Your task to perform on an android device: Set the phone to "Do not disturb". Image 0: 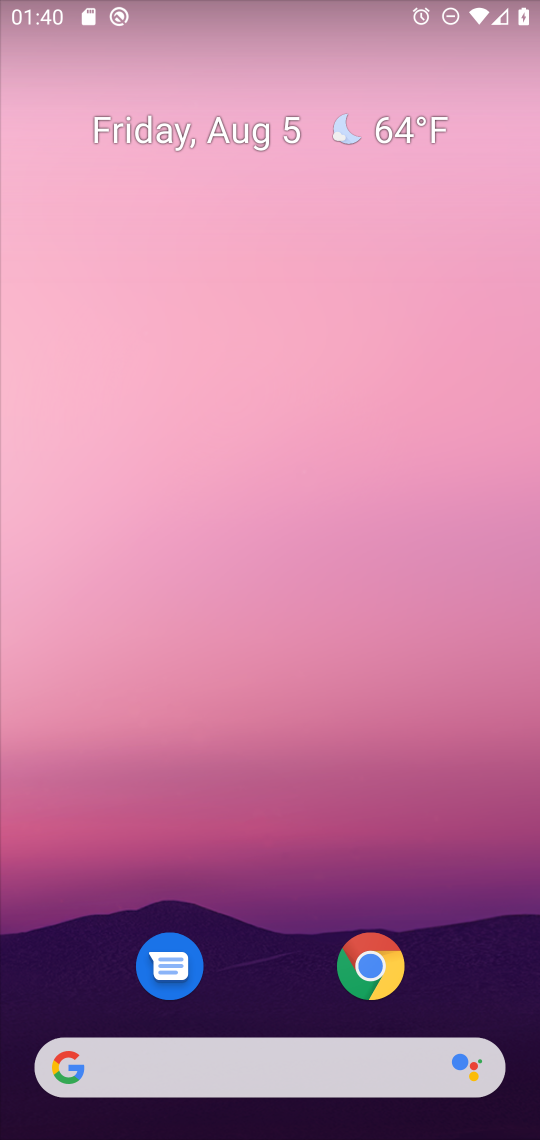
Step 0: drag from (267, 812) to (324, 42)
Your task to perform on an android device: Set the phone to "Do not disturb". Image 1: 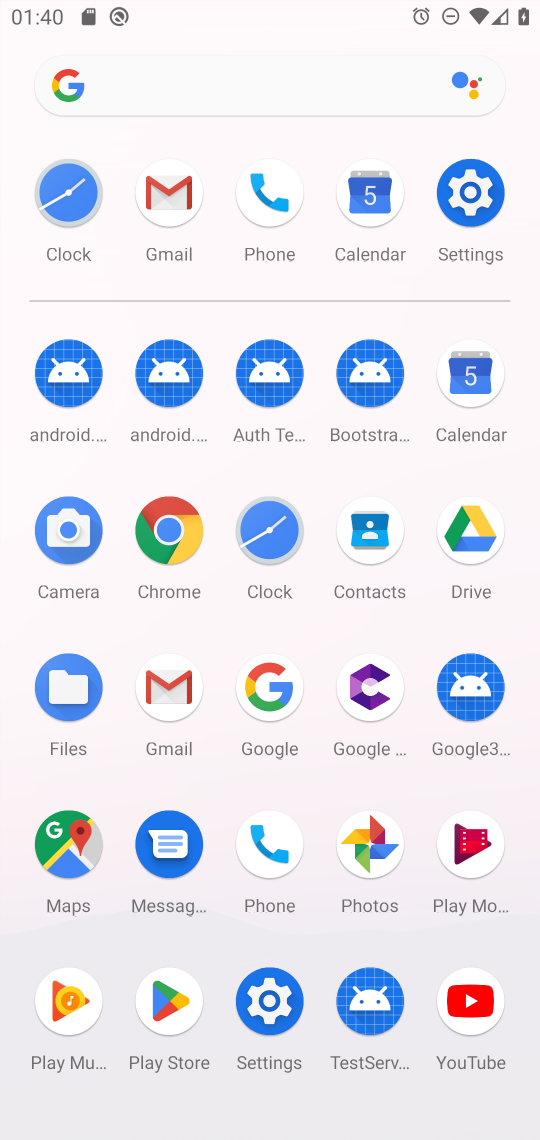
Step 1: click (461, 186)
Your task to perform on an android device: Set the phone to "Do not disturb". Image 2: 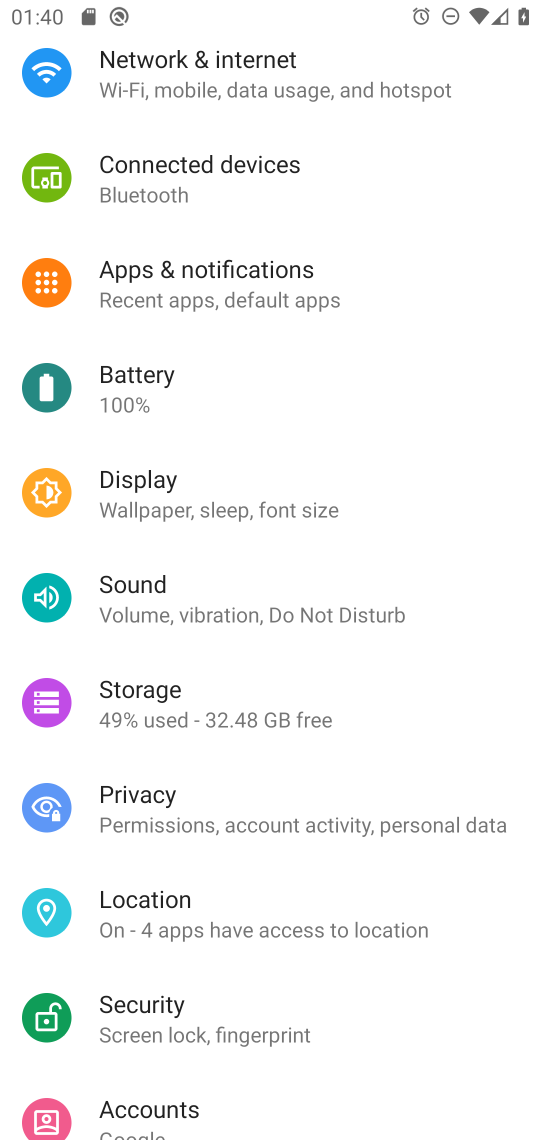
Step 2: click (312, 603)
Your task to perform on an android device: Set the phone to "Do not disturb". Image 3: 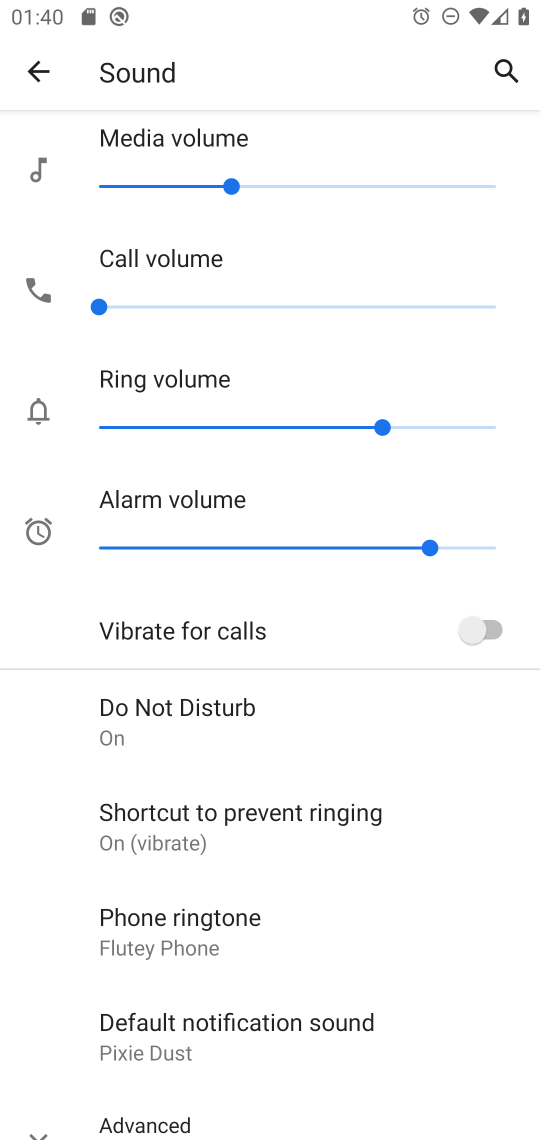
Step 3: task complete